Your task to perform on an android device: move a message to another label in the gmail app Image 0: 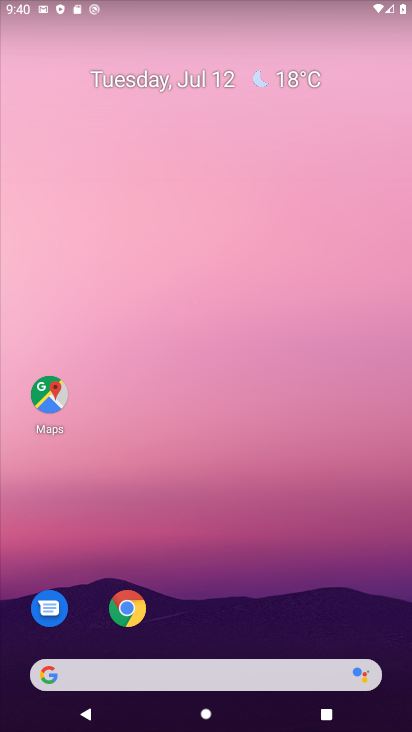
Step 0: drag from (209, 590) to (178, 27)
Your task to perform on an android device: move a message to another label in the gmail app Image 1: 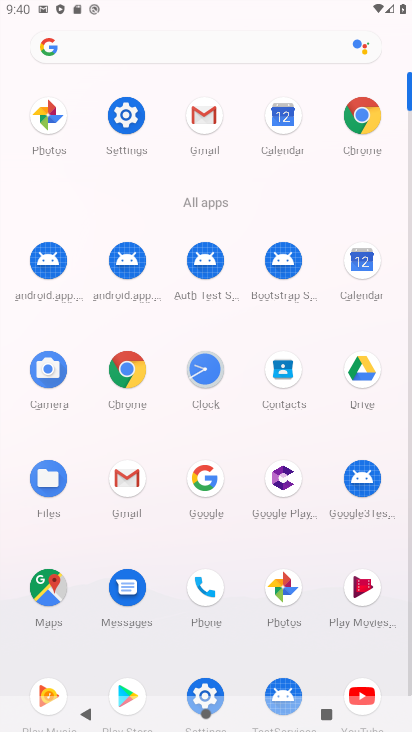
Step 1: click (205, 114)
Your task to perform on an android device: move a message to another label in the gmail app Image 2: 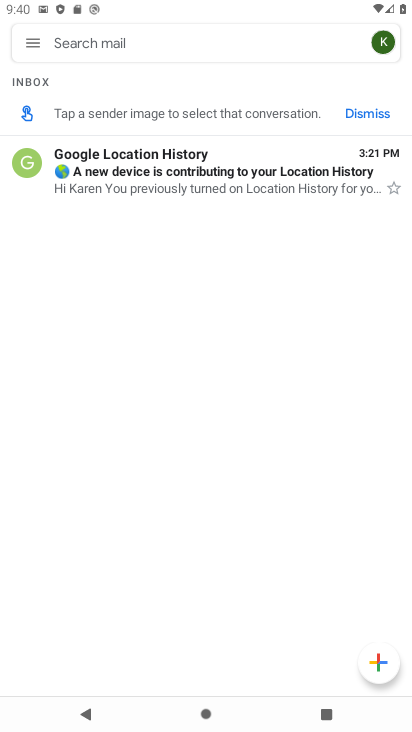
Step 2: click (124, 151)
Your task to perform on an android device: move a message to another label in the gmail app Image 3: 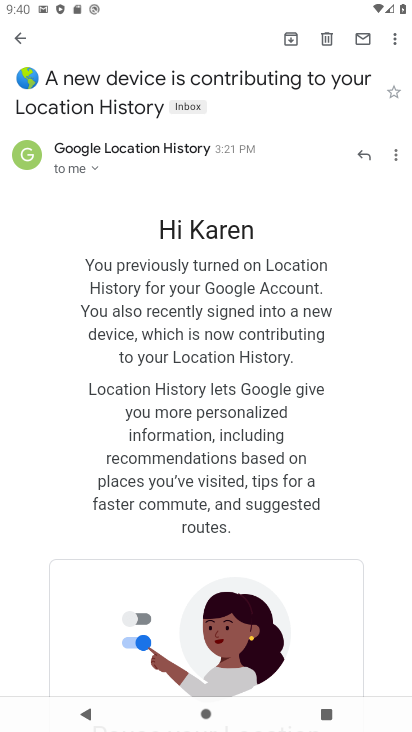
Step 3: click (398, 151)
Your task to perform on an android device: move a message to another label in the gmail app Image 4: 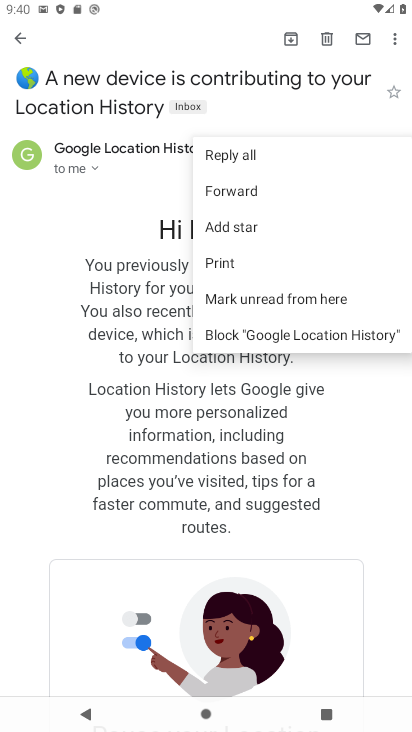
Step 4: click (395, 38)
Your task to perform on an android device: move a message to another label in the gmail app Image 5: 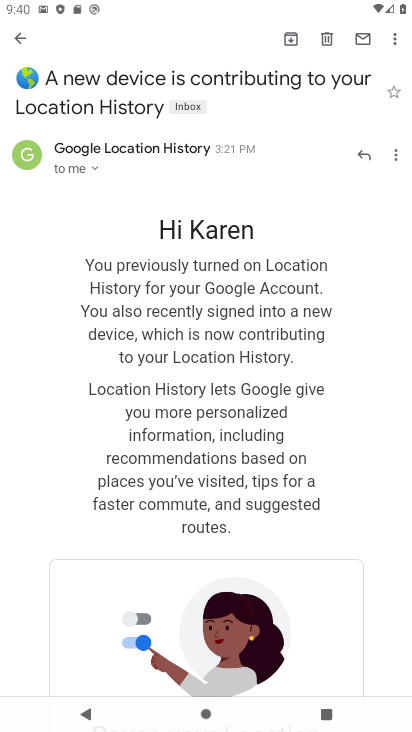
Step 5: click (395, 37)
Your task to perform on an android device: move a message to another label in the gmail app Image 6: 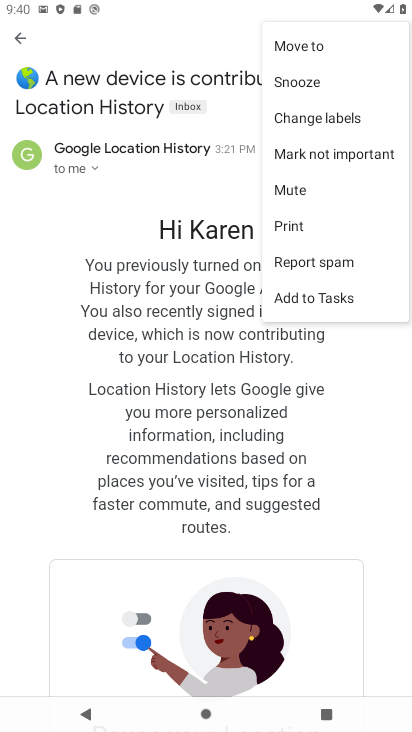
Step 6: click (306, 118)
Your task to perform on an android device: move a message to another label in the gmail app Image 7: 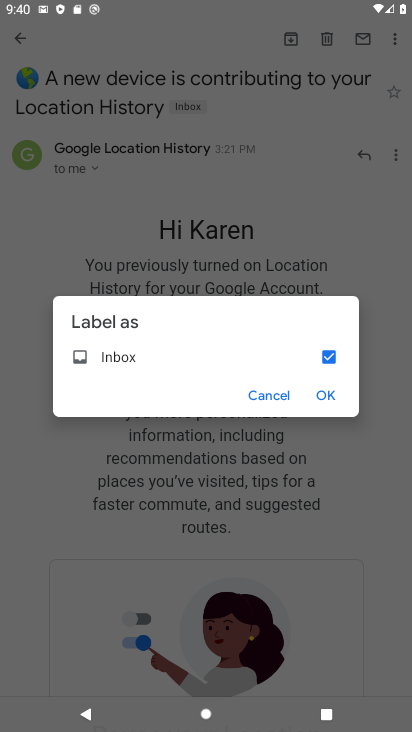
Step 7: click (324, 394)
Your task to perform on an android device: move a message to another label in the gmail app Image 8: 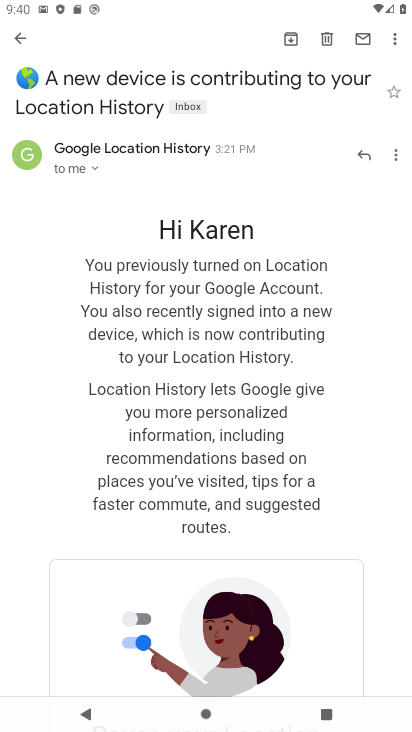
Step 8: task complete